Your task to perform on an android device: Open the Play Movies app and select the watchlist tab. Image 0: 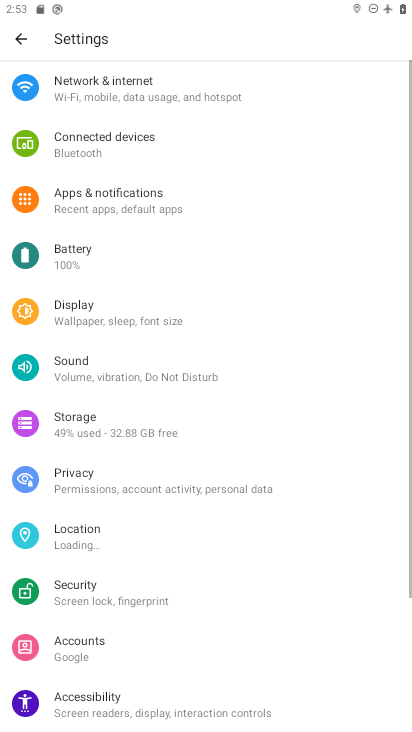
Step 0: press home button
Your task to perform on an android device: Open the Play Movies app and select the watchlist tab. Image 1: 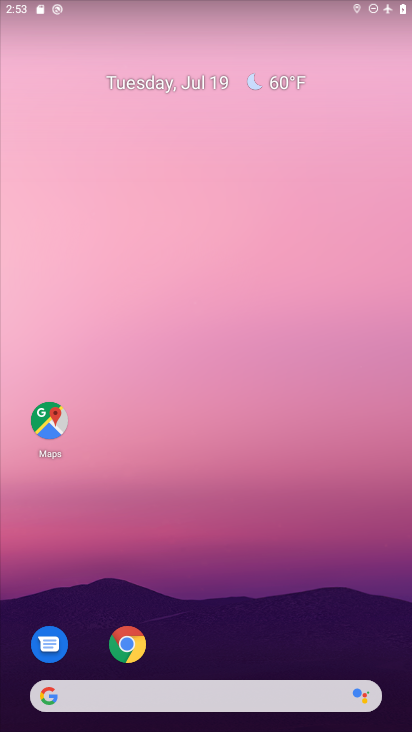
Step 1: drag from (213, 659) to (141, 69)
Your task to perform on an android device: Open the Play Movies app and select the watchlist tab. Image 2: 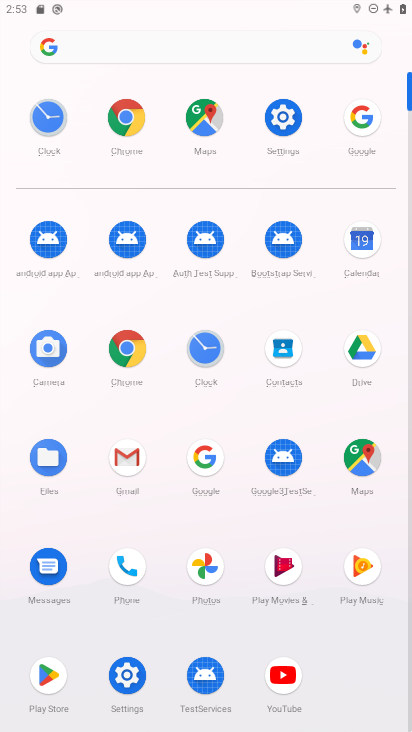
Step 2: click (283, 559)
Your task to perform on an android device: Open the Play Movies app and select the watchlist tab. Image 3: 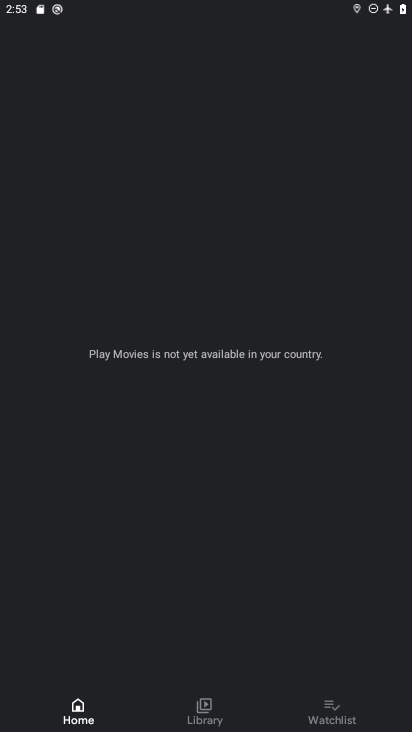
Step 3: click (326, 711)
Your task to perform on an android device: Open the Play Movies app and select the watchlist tab. Image 4: 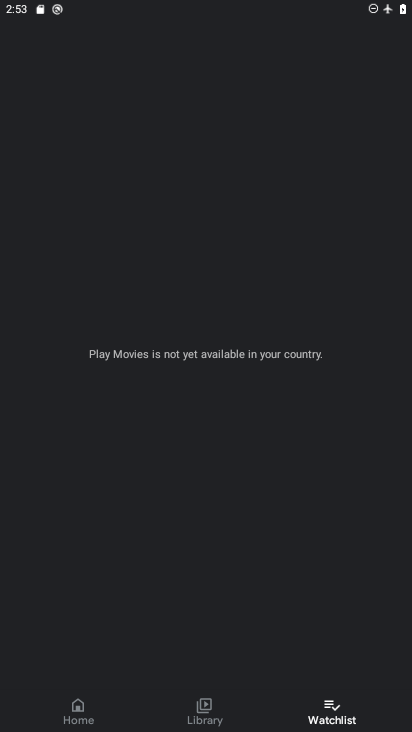
Step 4: task complete